Your task to perform on an android device: add a label to a message in the gmail app Image 0: 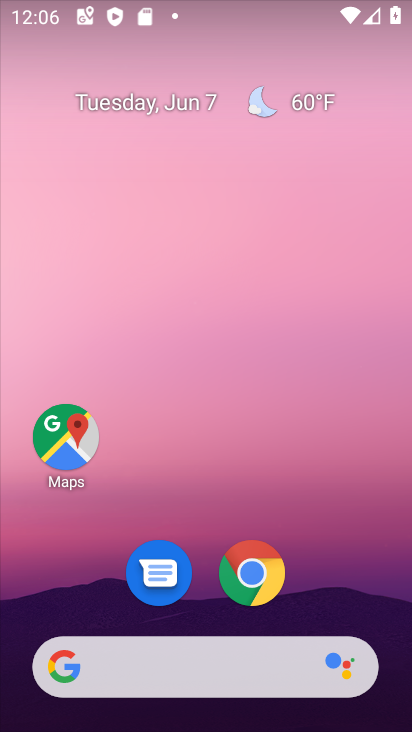
Step 0: press home button
Your task to perform on an android device: add a label to a message in the gmail app Image 1: 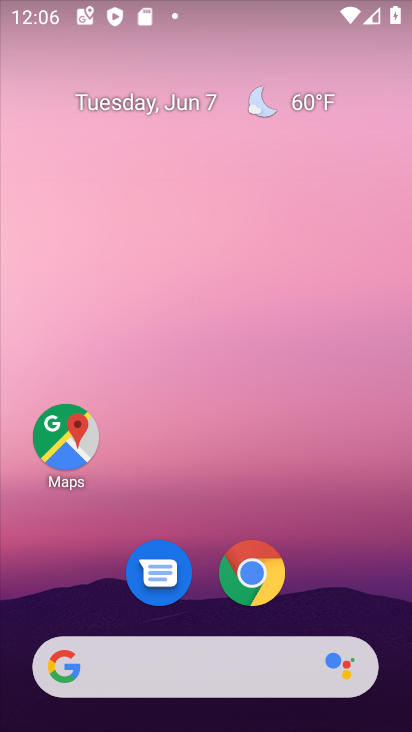
Step 1: drag from (350, 600) to (353, 278)
Your task to perform on an android device: add a label to a message in the gmail app Image 2: 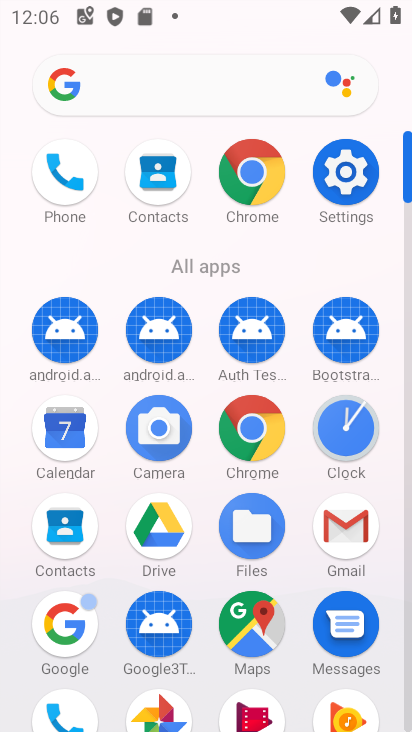
Step 2: drag from (198, 571) to (175, 228)
Your task to perform on an android device: add a label to a message in the gmail app Image 3: 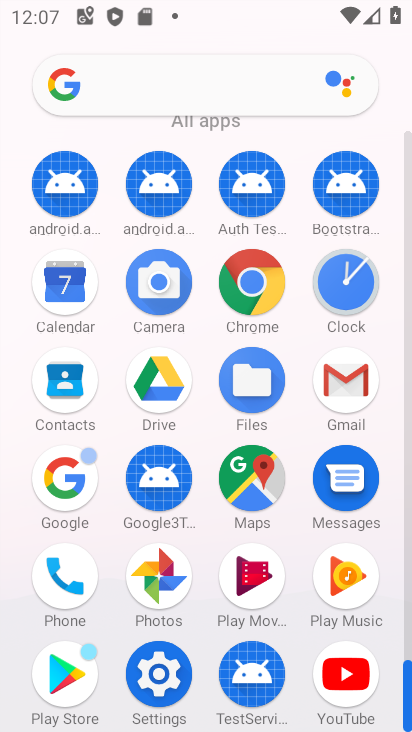
Step 3: drag from (260, 251) to (273, 492)
Your task to perform on an android device: add a label to a message in the gmail app Image 4: 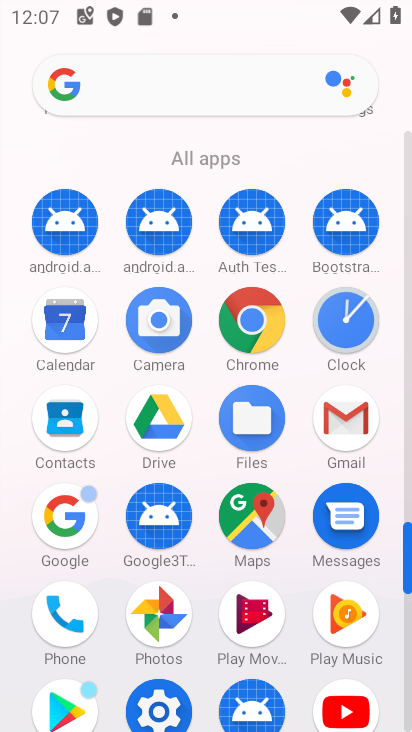
Step 4: click (340, 435)
Your task to perform on an android device: add a label to a message in the gmail app Image 5: 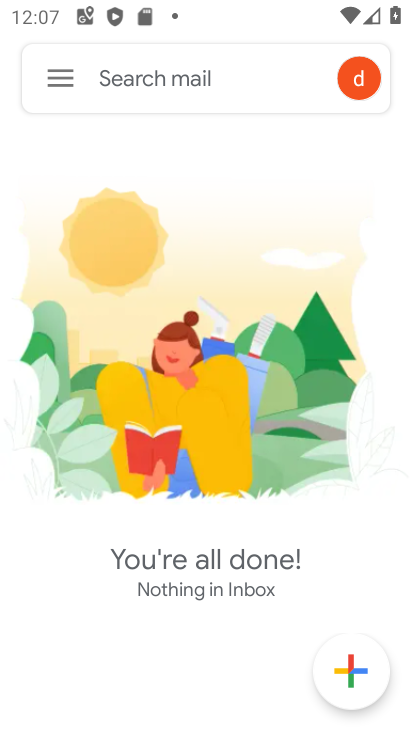
Step 5: click (58, 85)
Your task to perform on an android device: add a label to a message in the gmail app Image 6: 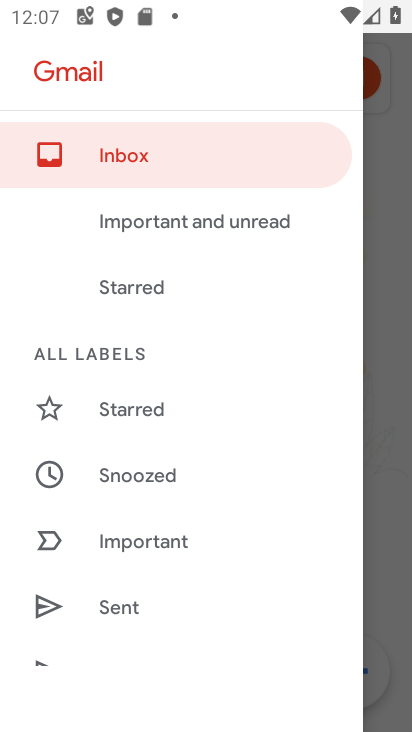
Step 6: task complete